Your task to perform on an android device: turn off picture-in-picture Image 0: 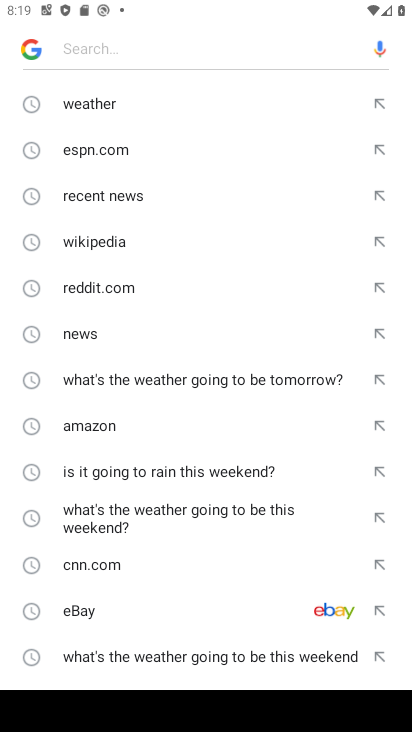
Step 0: press home button
Your task to perform on an android device: turn off picture-in-picture Image 1: 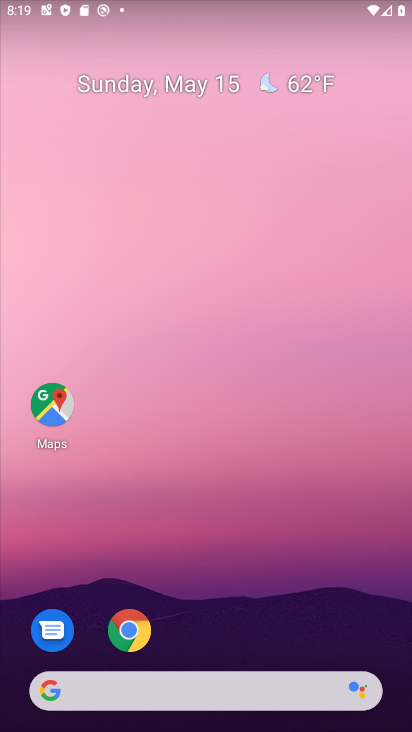
Step 1: click (137, 634)
Your task to perform on an android device: turn off picture-in-picture Image 2: 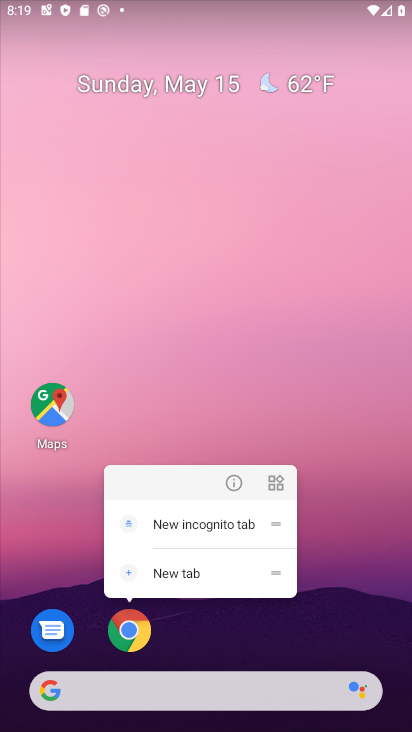
Step 2: click (230, 482)
Your task to perform on an android device: turn off picture-in-picture Image 3: 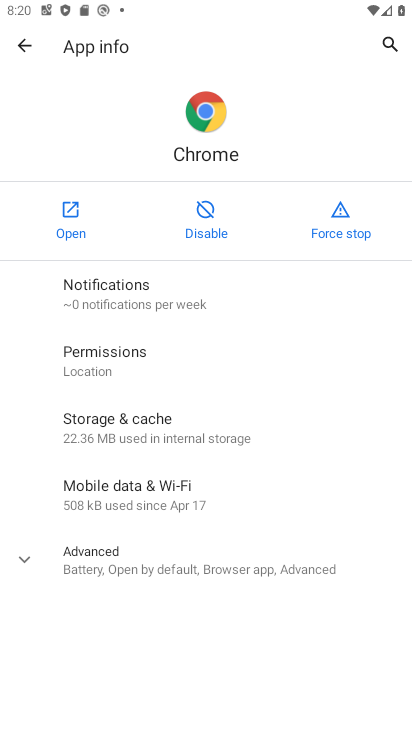
Step 3: click (104, 559)
Your task to perform on an android device: turn off picture-in-picture Image 4: 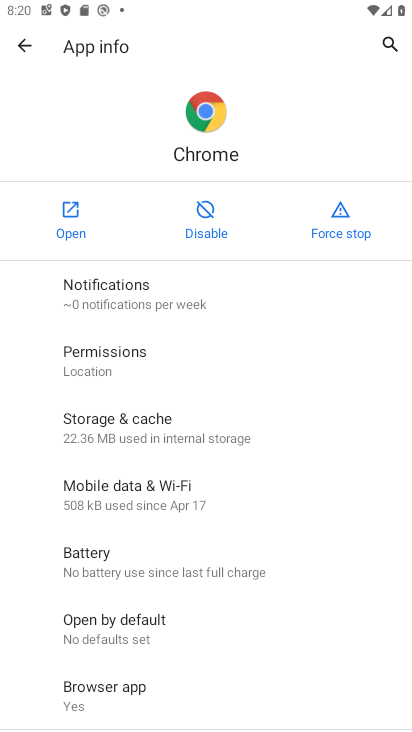
Step 4: drag from (163, 584) to (180, 450)
Your task to perform on an android device: turn off picture-in-picture Image 5: 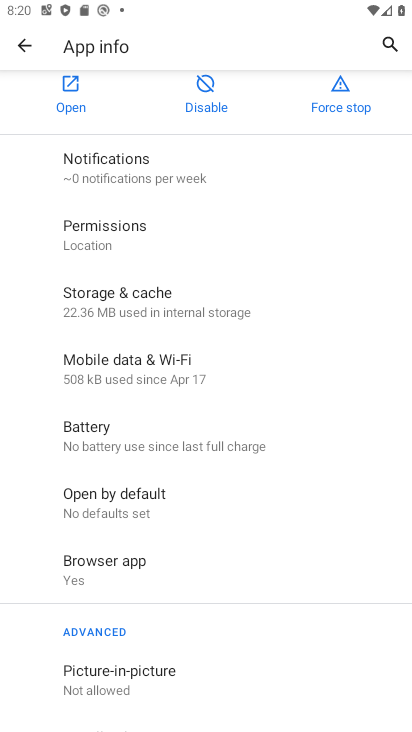
Step 5: click (122, 677)
Your task to perform on an android device: turn off picture-in-picture Image 6: 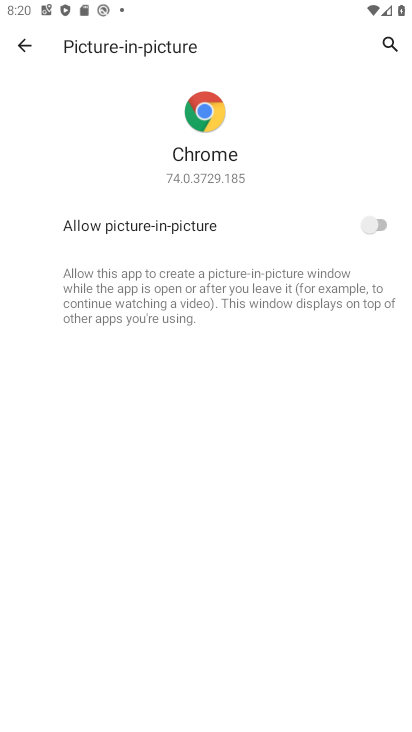
Step 6: task complete